Your task to perform on an android device: toggle priority inbox in the gmail app Image 0: 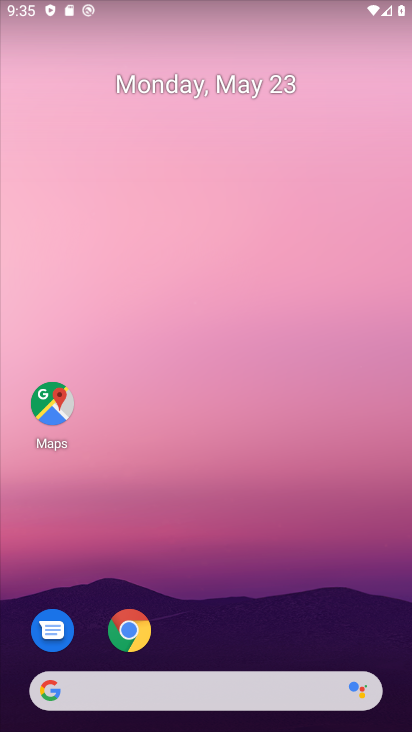
Step 0: drag from (220, 685) to (297, 58)
Your task to perform on an android device: toggle priority inbox in the gmail app Image 1: 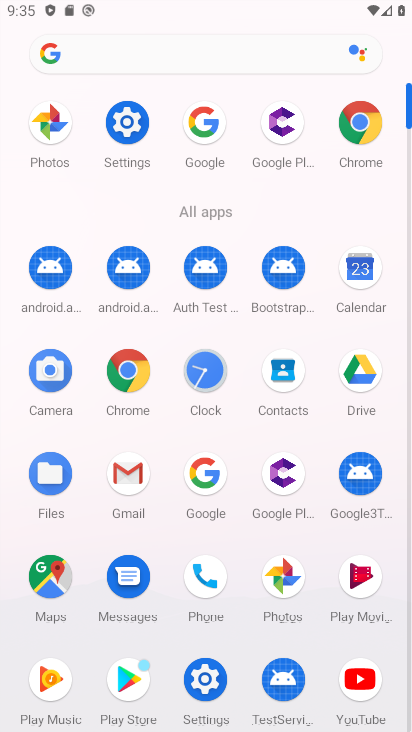
Step 1: click (131, 475)
Your task to perform on an android device: toggle priority inbox in the gmail app Image 2: 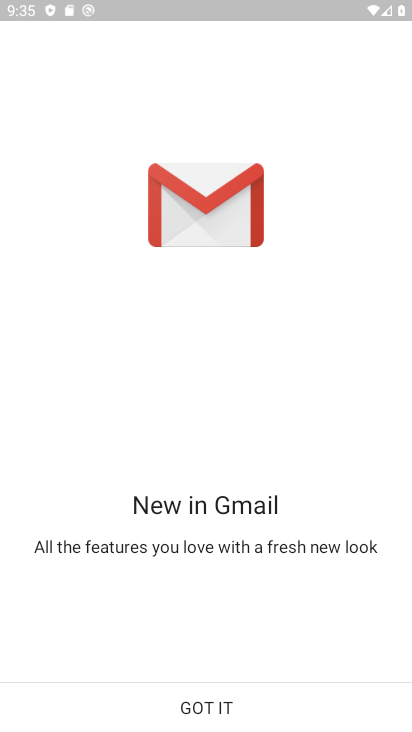
Step 2: click (199, 692)
Your task to perform on an android device: toggle priority inbox in the gmail app Image 3: 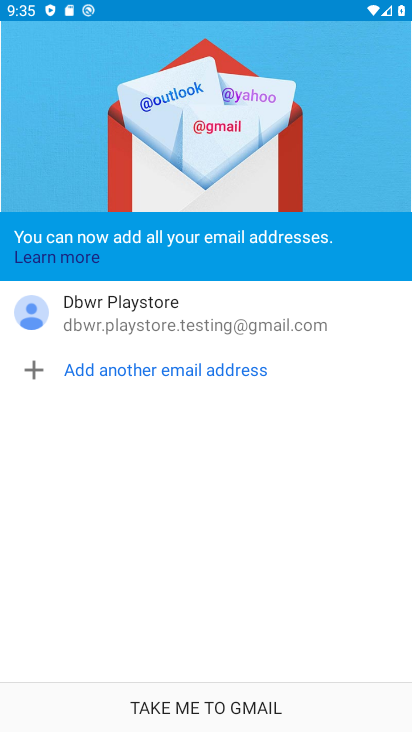
Step 3: click (193, 699)
Your task to perform on an android device: toggle priority inbox in the gmail app Image 4: 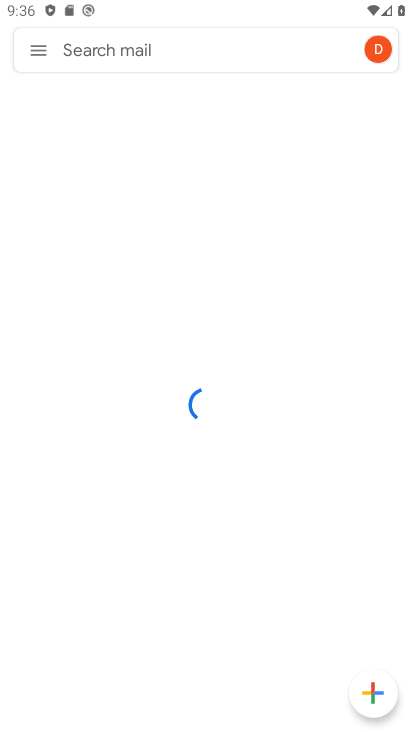
Step 4: click (44, 57)
Your task to perform on an android device: toggle priority inbox in the gmail app Image 5: 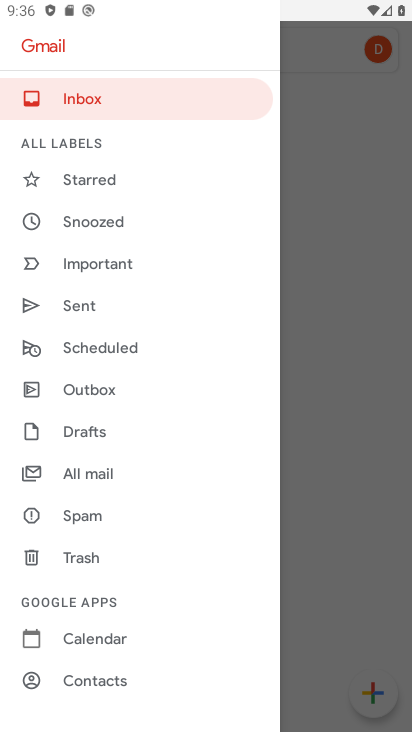
Step 5: drag from (113, 632) to (94, 250)
Your task to perform on an android device: toggle priority inbox in the gmail app Image 6: 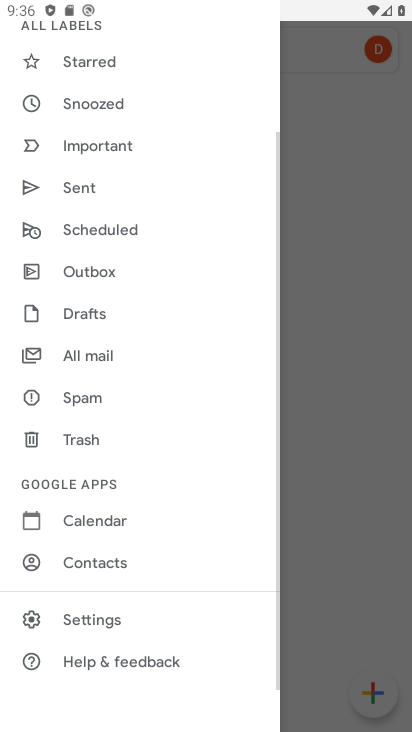
Step 6: click (93, 613)
Your task to perform on an android device: toggle priority inbox in the gmail app Image 7: 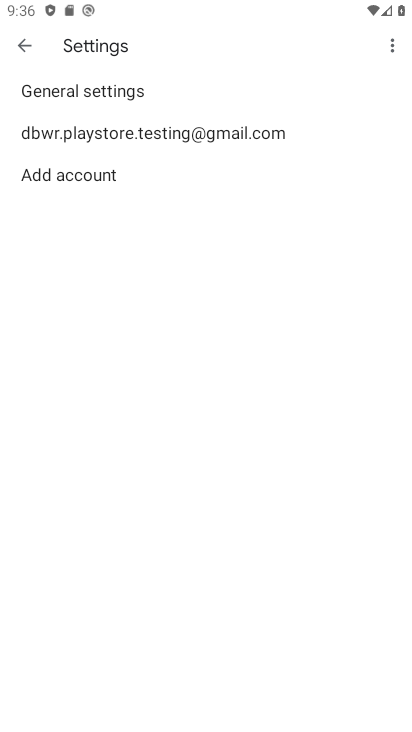
Step 7: click (184, 136)
Your task to perform on an android device: toggle priority inbox in the gmail app Image 8: 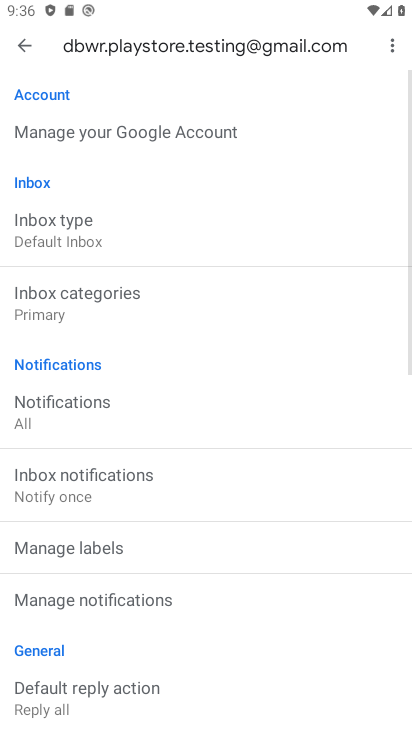
Step 8: click (74, 244)
Your task to perform on an android device: toggle priority inbox in the gmail app Image 9: 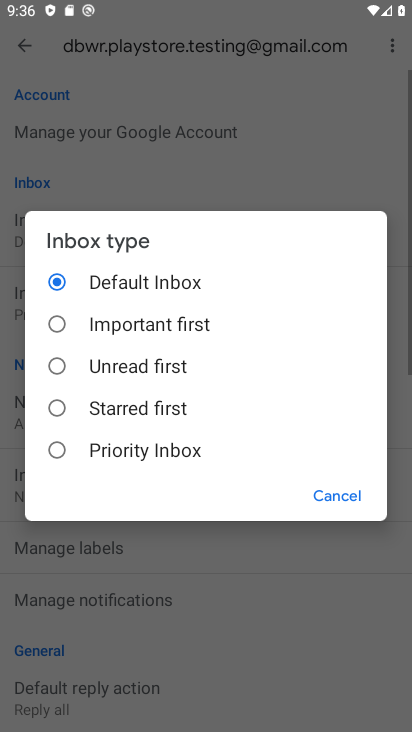
Step 9: click (137, 443)
Your task to perform on an android device: toggle priority inbox in the gmail app Image 10: 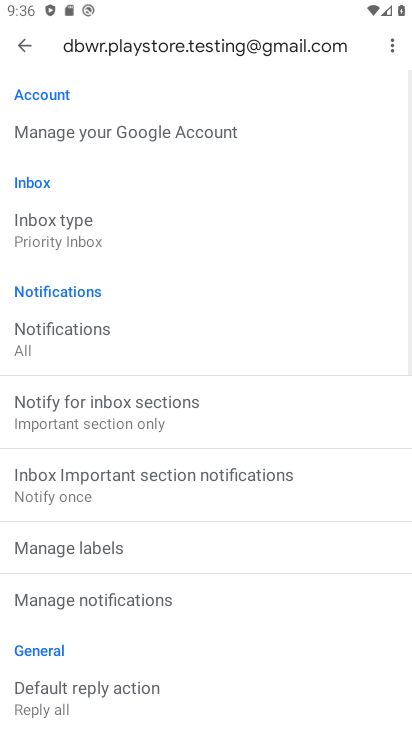
Step 10: task complete